Your task to perform on an android device: Go to Google Image 0: 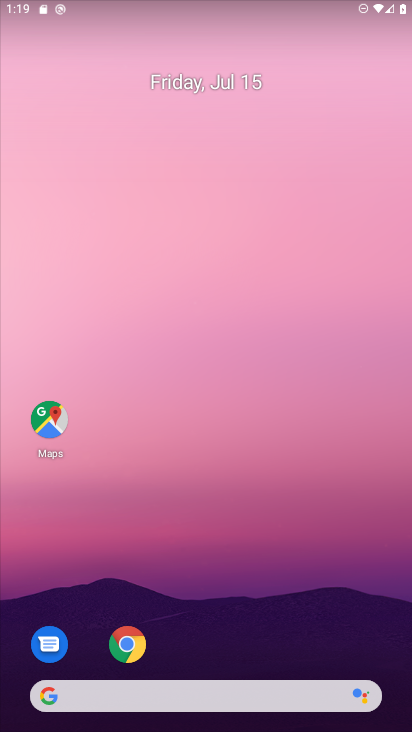
Step 0: drag from (396, 673) to (314, 68)
Your task to perform on an android device: Go to Google Image 1: 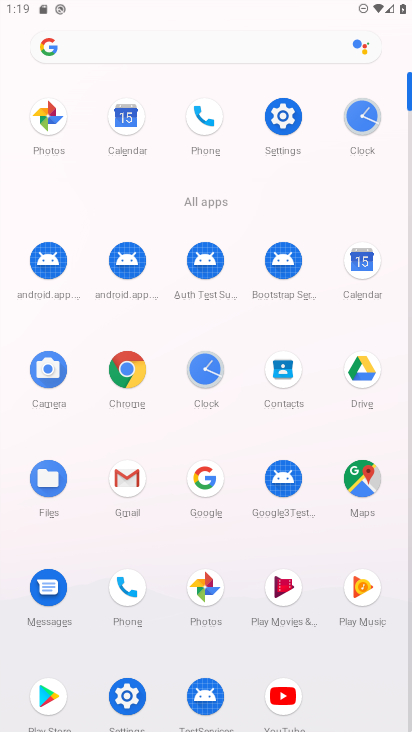
Step 1: click (218, 472)
Your task to perform on an android device: Go to Google Image 2: 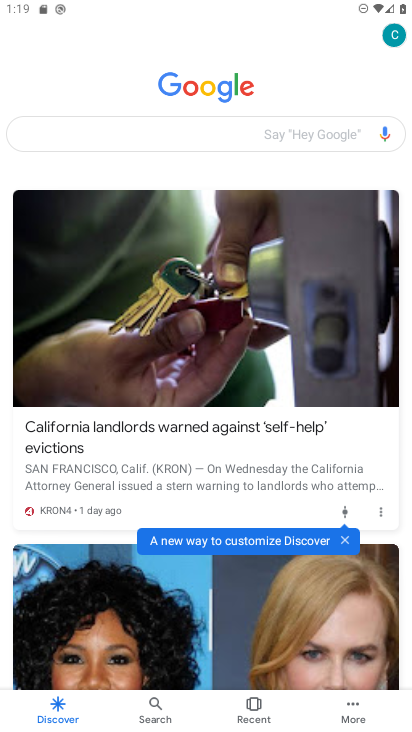
Step 2: task complete